Your task to perform on an android device: Open display settings Image 0: 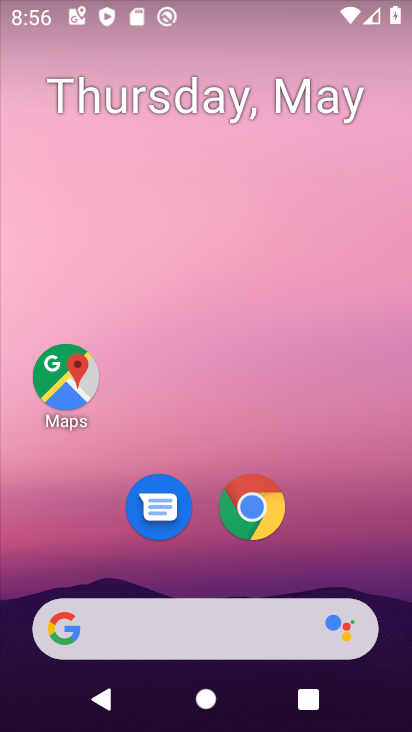
Step 0: drag from (254, 653) to (293, 243)
Your task to perform on an android device: Open display settings Image 1: 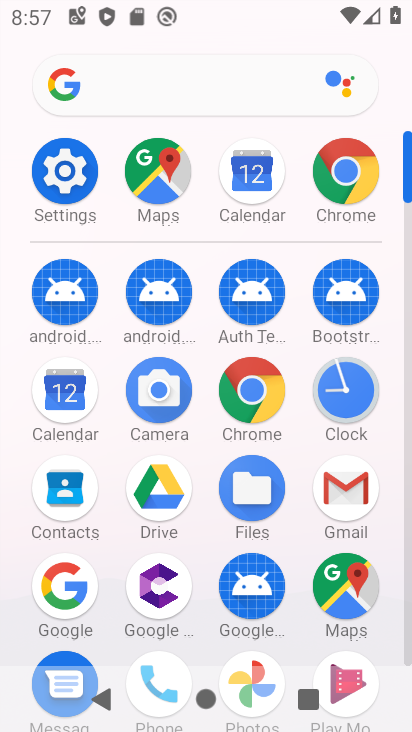
Step 1: click (75, 180)
Your task to perform on an android device: Open display settings Image 2: 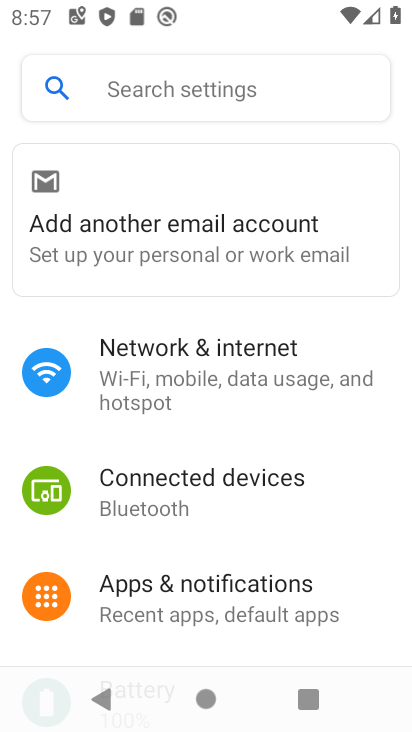
Step 2: drag from (204, 537) to (245, 291)
Your task to perform on an android device: Open display settings Image 3: 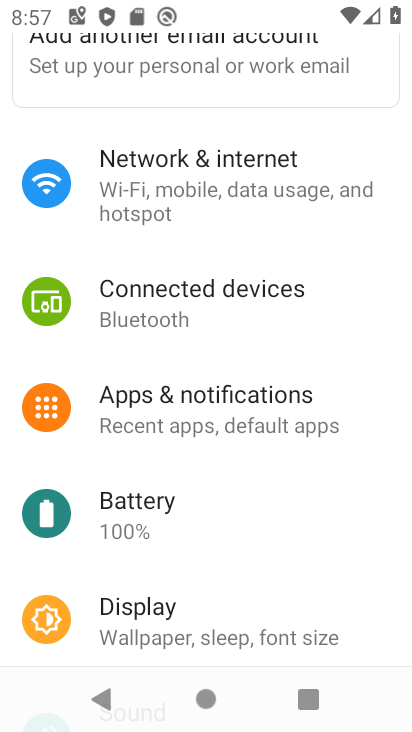
Step 3: click (160, 626)
Your task to perform on an android device: Open display settings Image 4: 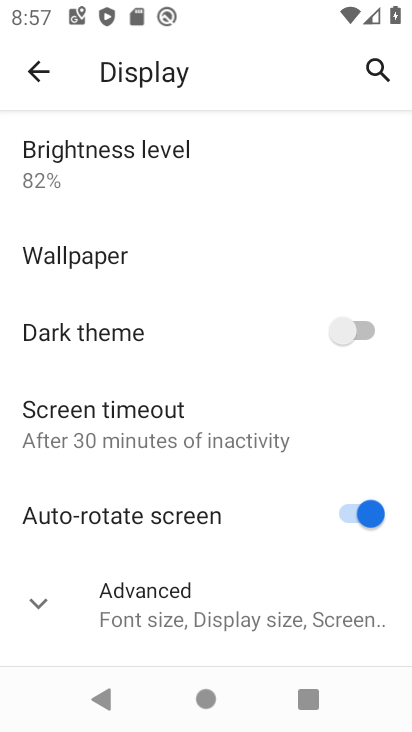
Step 4: task complete